Your task to perform on an android device: When is my next meeting? Image 0: 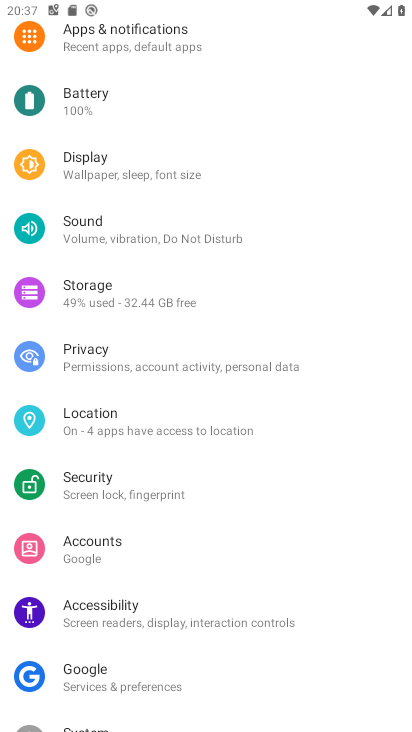
Step 0: drag from (355, 687) to (331, 285)
Your task to perform on an android device: When is my next meeting? Image 1: 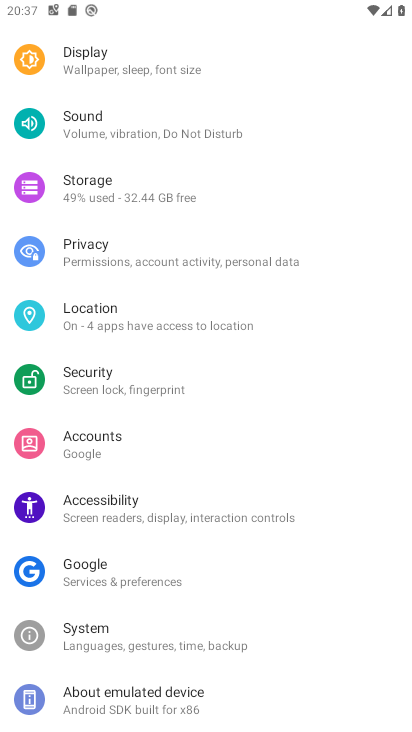
Step 1: press home button
Your task to perform on an android device: When is my next meeting? Image 2: 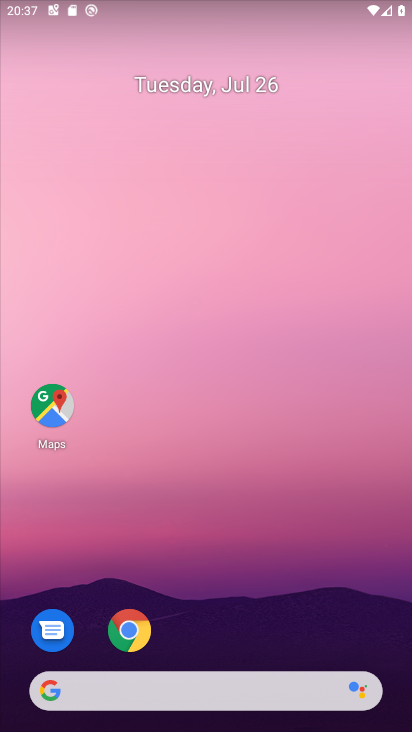
Step 2: drag from (401, 714) to (321, 40)
Your task to perform on an android device: When is my next meeting? Image 3: 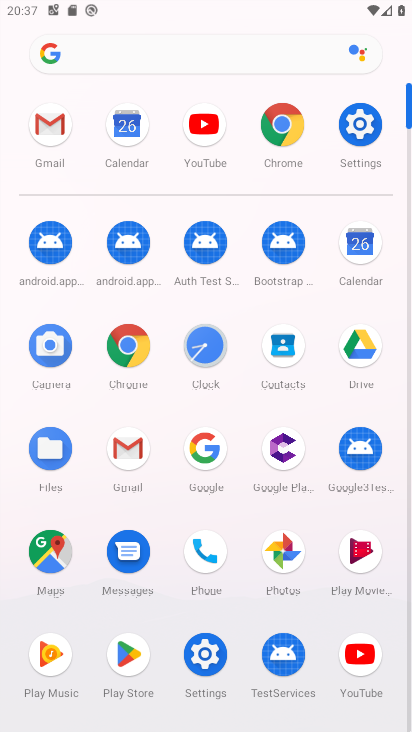
Step 3: click (364, 259)
Your task to perform on an android device: When is my next meeting? Image 4: 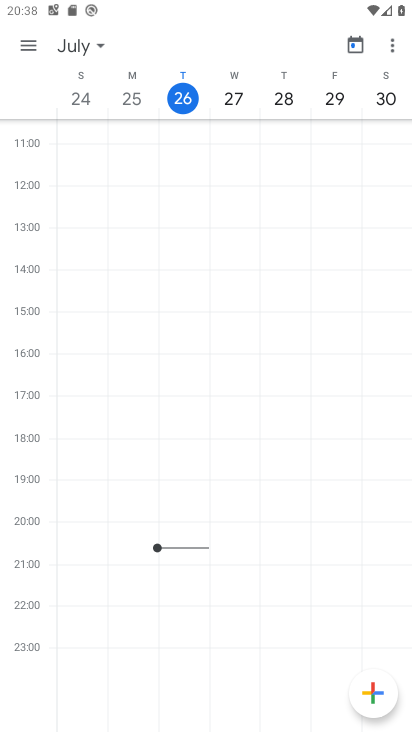
Step 4: click (33, 48)
Your task to perform on an android device: When is my next meeting? Image 5: 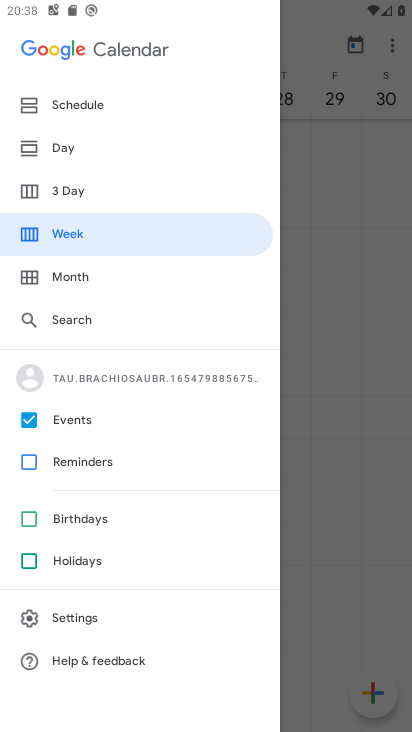
Step 5: click (77, 105)
Your task to perform on an android device: When is my next meeting? Image 6: 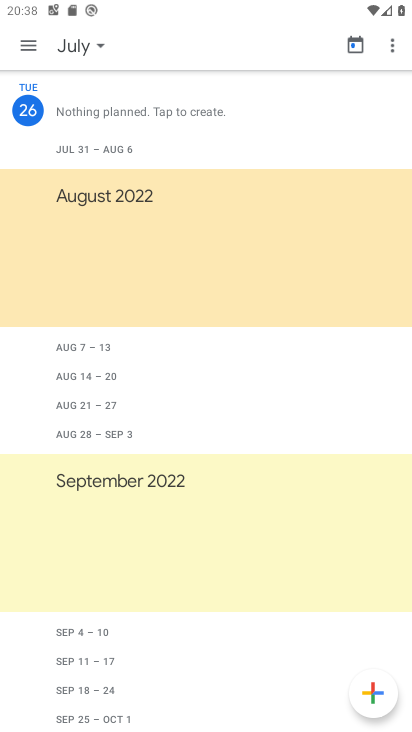
Step 6: task complete